Your task to perform on an android device: add a label to a message in the gmail app Image 0: 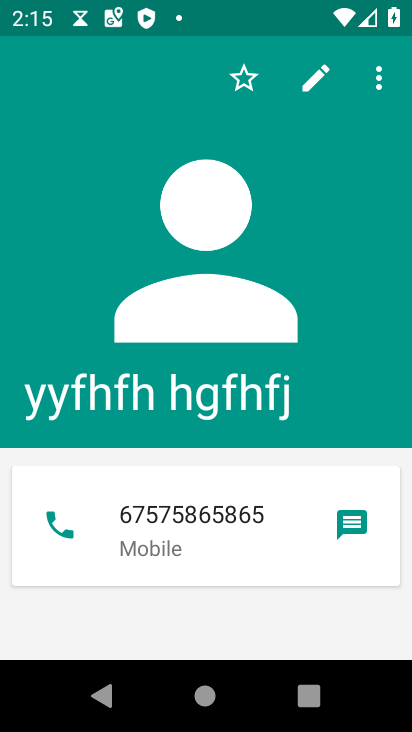
Step 0: press home button
Your task to perform on an android device: add a label to a message in the gmail app Image 1: 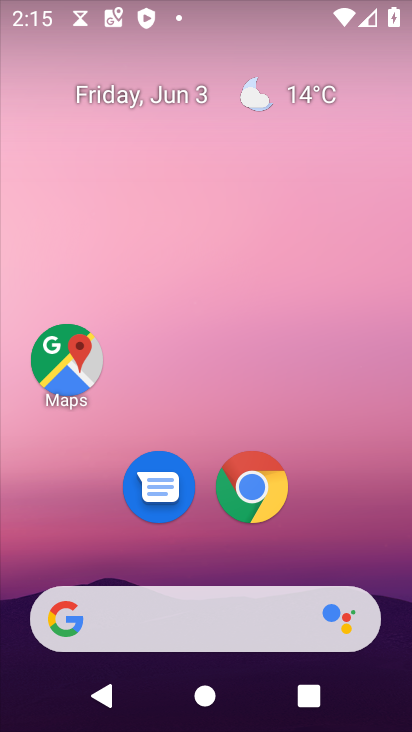
Step 1: drag from (345, 560) to (196, 18)
Your task to perform on an android device: add a label to a message in the gmail app Image 2: 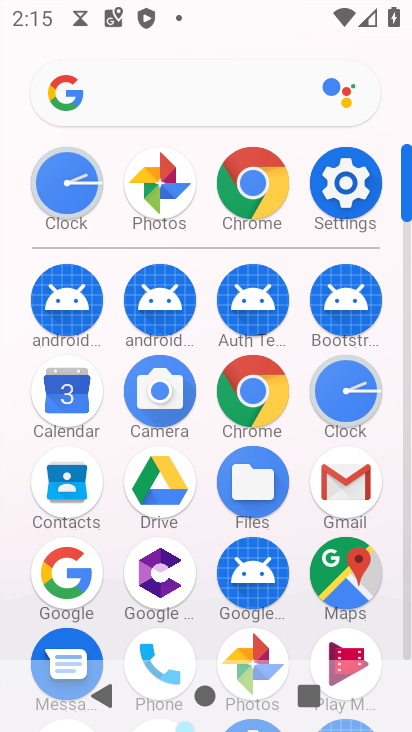
Step 2: click (330, 474)
Your task to perform on an android device: add a label to a message in the gmail app Image 3: 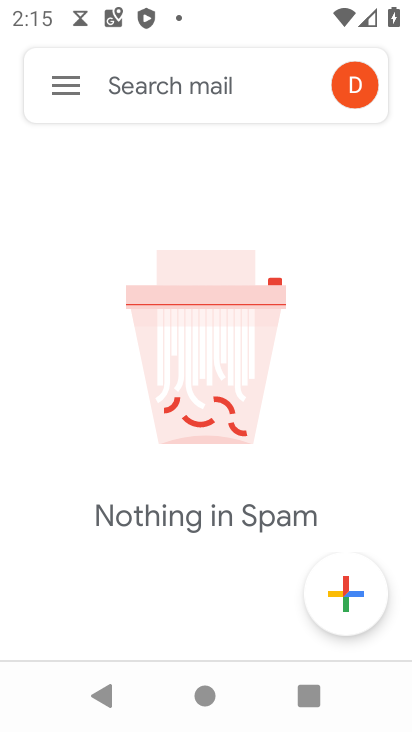
Step 3: click (60, 84)
Your task to perform on an android device: add a label to a message in the gmail app Image 4: 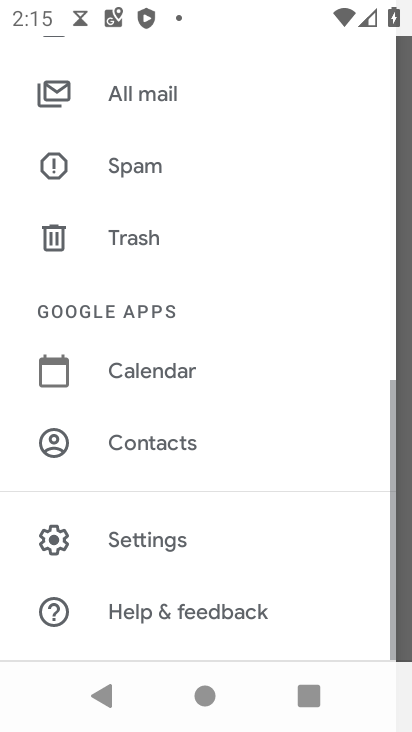
Step 4: click (170, 81)
Your task to perform on an android device: add a label to a message in the gmail app Image 5: 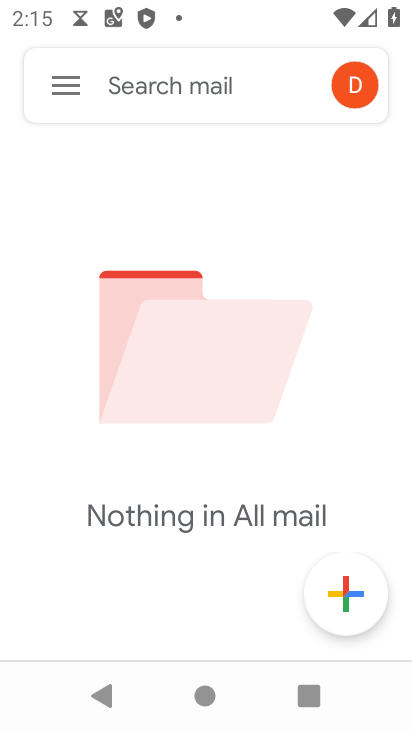
Step 5: task complete